Your task to perform on an android device: check data usage Image 0: 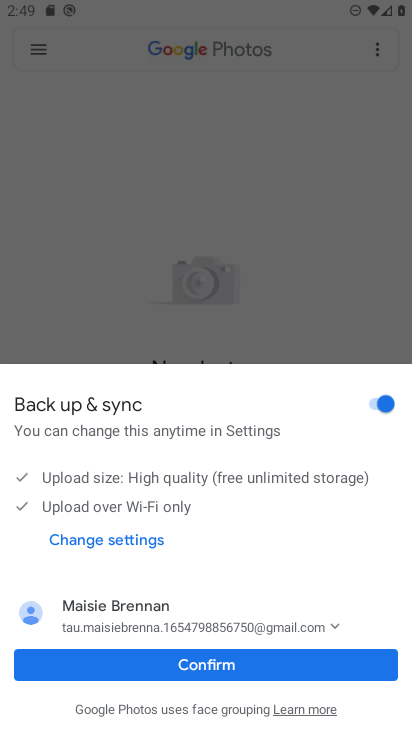
Step 0: press back button
Your task to perform on an android device: check data usage Image 1: 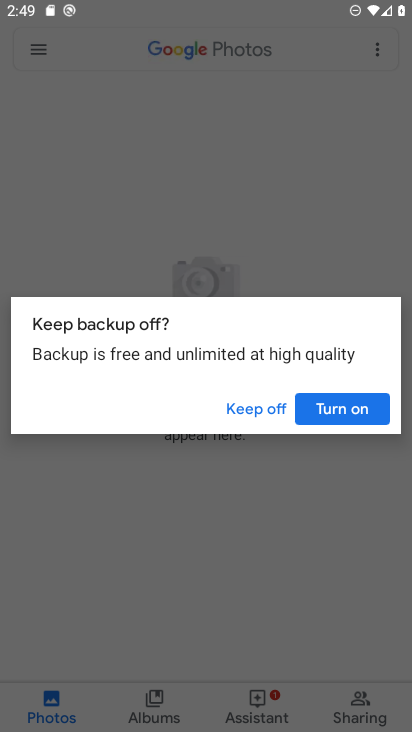
Step 1: press home button
Your task to perform on an android device: check data usage Image 2: 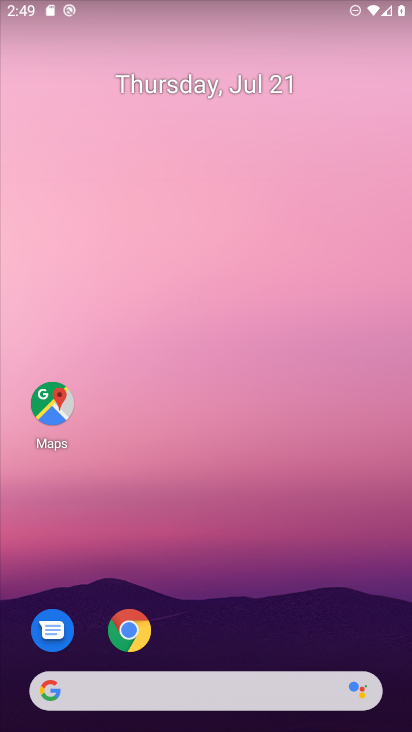
Step 2: drag from (292, 452) to (339, 9)
Your task to perform on an android device: check data usage Image 3: 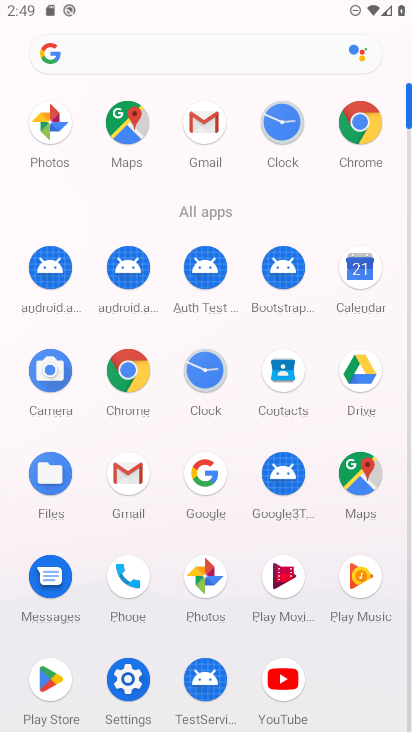
Step 3: click (126, 676)
Your task to perform on an android device: check data usage Image 4: 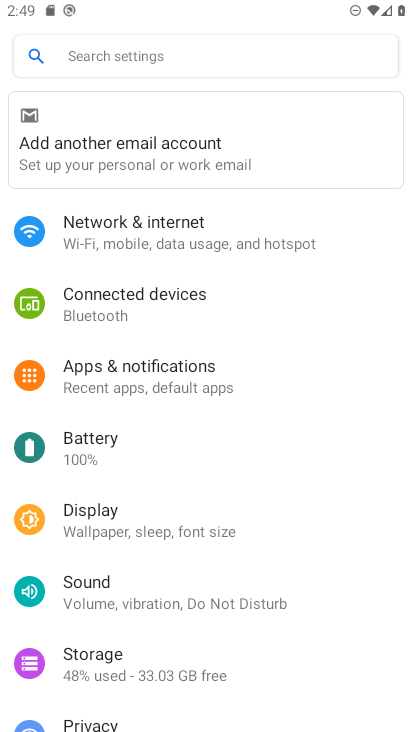
Step 4: click (187, 240)
Your task to perform on an android device: check data usage Image 5: 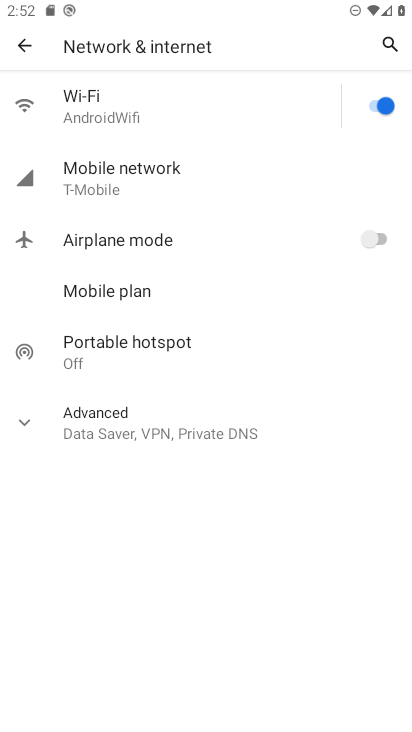
Step 5: click (149, 156)
Your task to perform on an android device: check data usage Image 6: 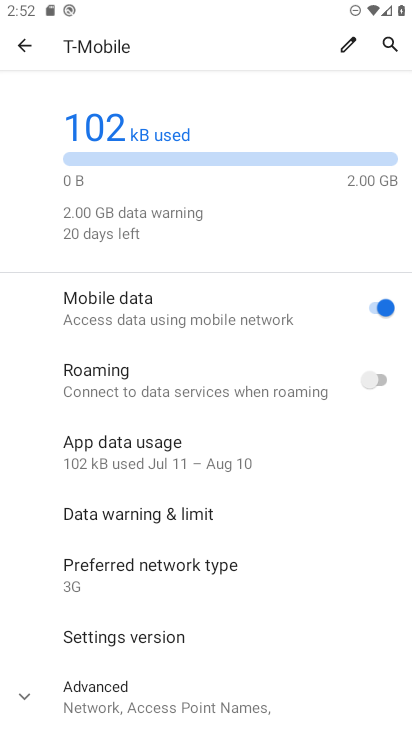
Step 6: click (148, 463)
Your task to perform on an android device: check data usage Image 7: 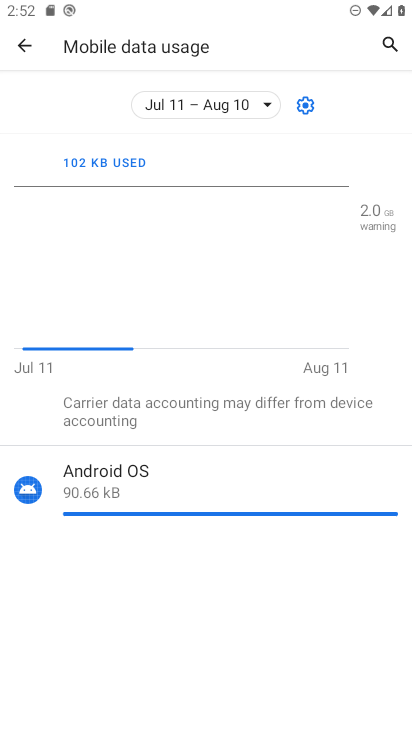
Step 7: task complete